Your task to perform on an android device: open the mobile data screen to see how much data has been used Image 0: 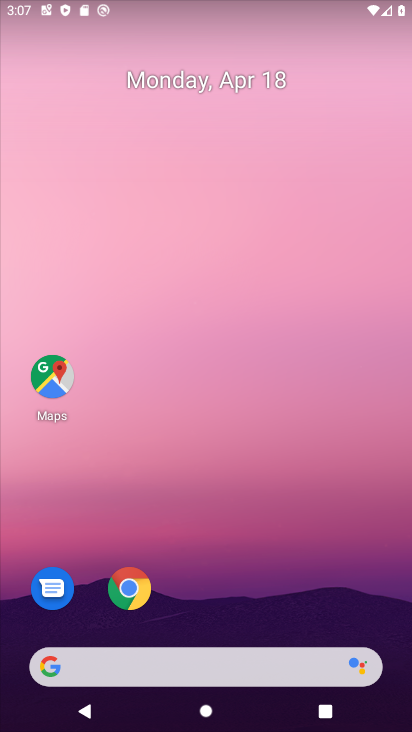
Step 0: drag from (332, 4) to (256, 722)
Your task to perform on an android device: open the mobile data screen to see how much data has been used Image 1: 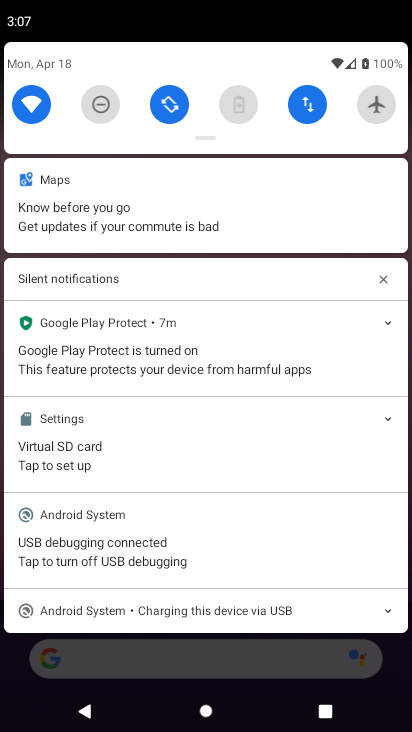
Step 1: drag from (250, 58) to (230, 670)
Your task to perform on an android device: open the mobile data screen to see how much data has been used Image 2: 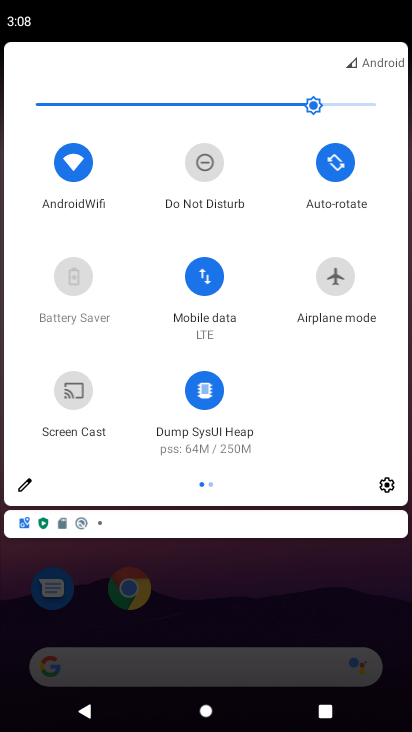
Step 2: click (383, 484)
Your task to perform on an android device: open the mobile data screen to see how much data has been used Image 3: 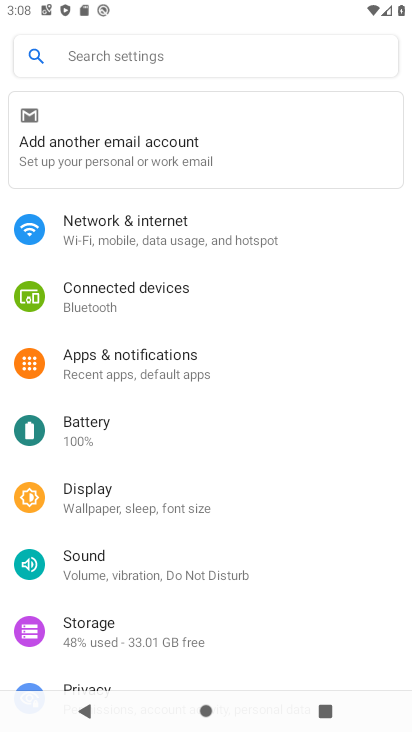
Step 3: click (187, 246)
Your task to perform on an android device: open the mobile data screen to see how much data has been used Image 4: 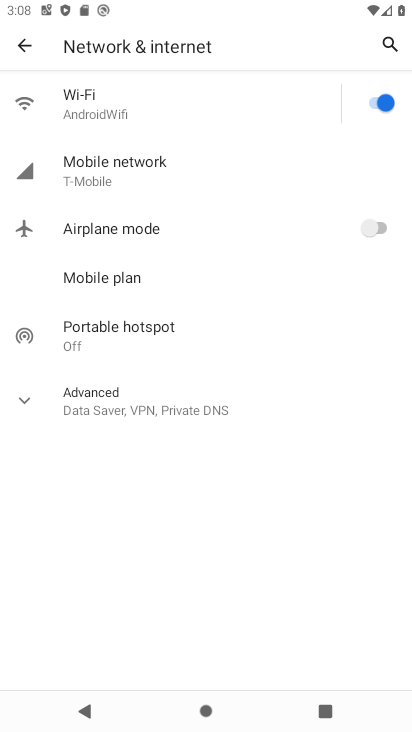
Step 4: click (185, 165)
Your task to perform on an android device: open the mobile data screen to see how much data has been used Image 5: 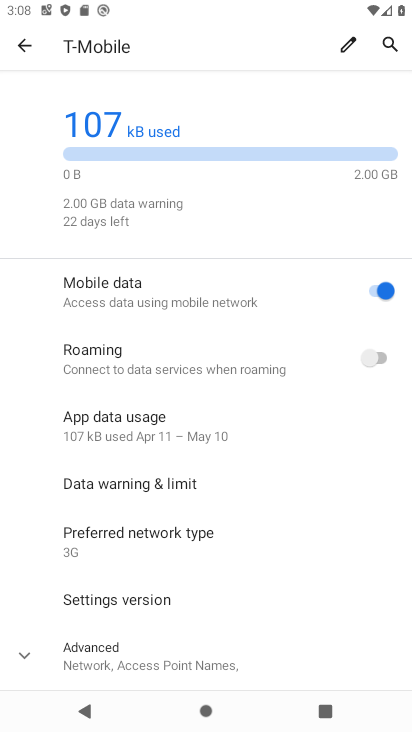
Step 5: task complete